Your task to perform on an android device: Open display settings Image 0: 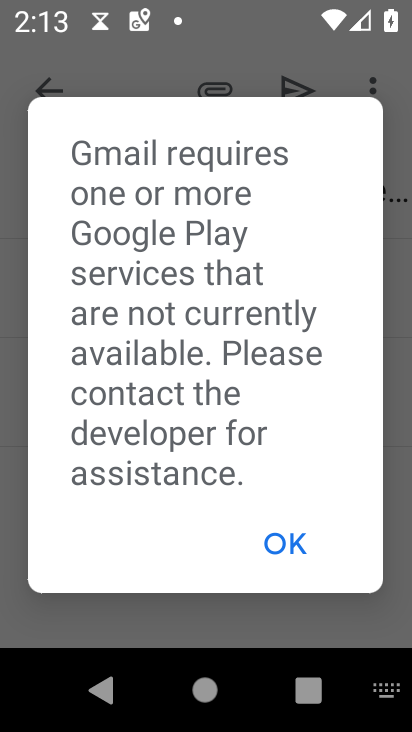
Step 0: press home button
Your task to perform on an android device: Open display settings Image 1: 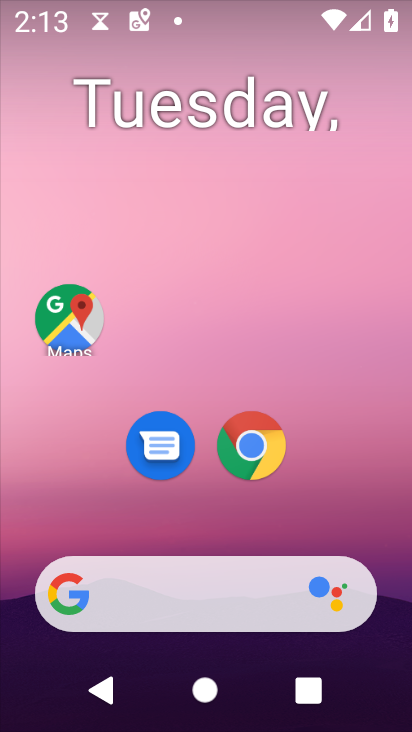
Step 1: drag from (294, 570) to (296, 35)
Your task to perform on an android device: Open display settings Image 2: 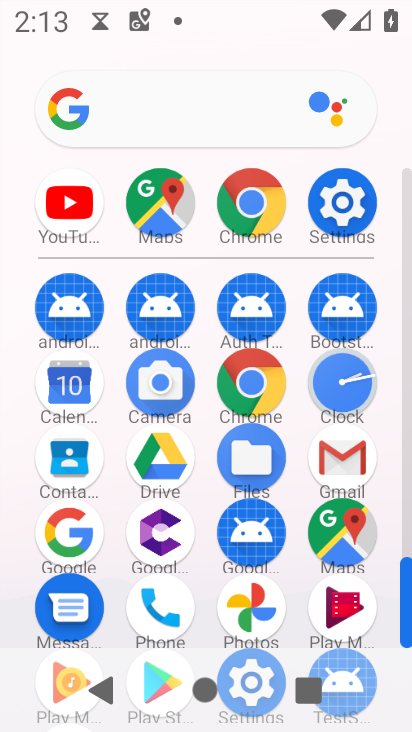
Step 2: click (336, 192)
Your task to perform on an android device: Open display settings Image 3: 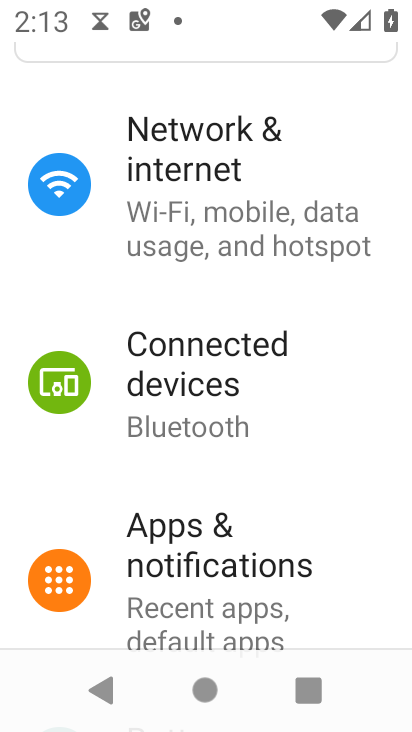
Step 3: drag from (200, 315) to (234, 618)
Your task to perform on an android device: Open display settings Image 4: 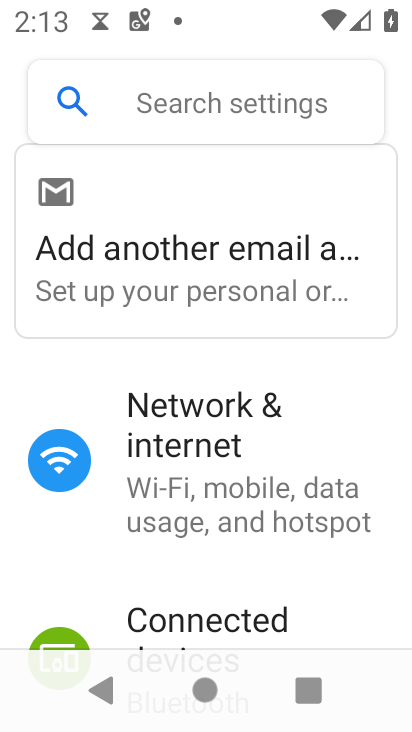
Step 4: drag from (235, 618) to (284, 254)
Your task to perform on an android device: Open display settings Image 5: 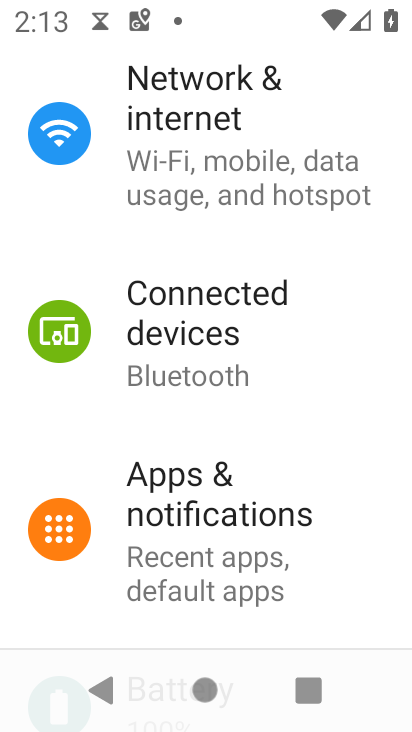
Step 5: drag from (292, 583) to (283, 298)
Your task to perform on an android device: Open display settings Image 6: 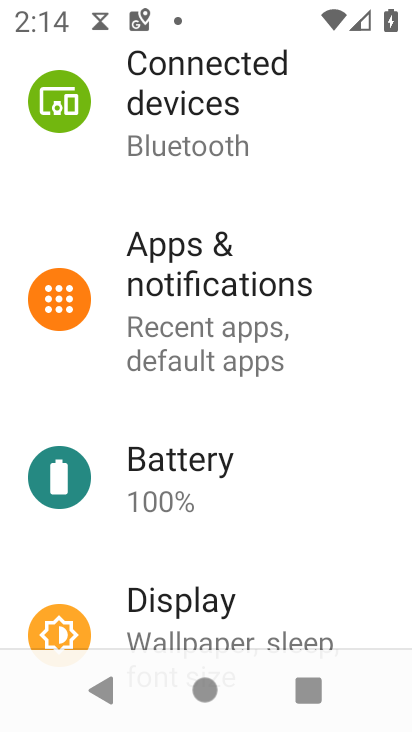
Step 6: click (280, 620)
Your task to perform on an android device: Open display settings Image 7: 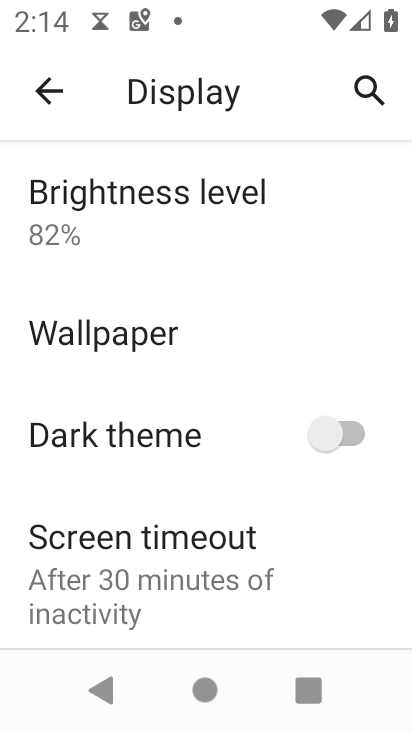
Step 7: task complete